Your task to perform on an android device: turn on bluetooth scan Image 0: 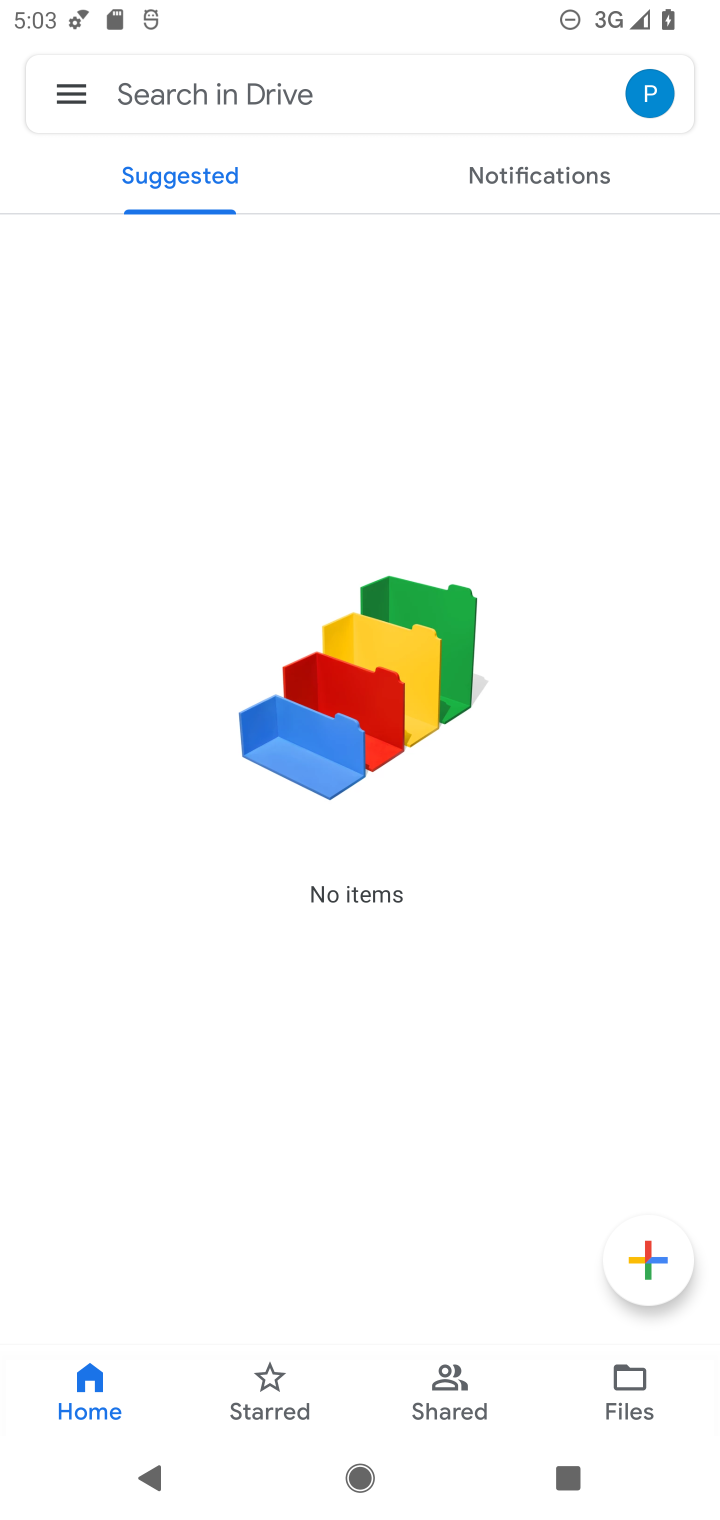
Step 0: press home button
Your task to perform on an android device: turn on bluetooth scan Image 1: 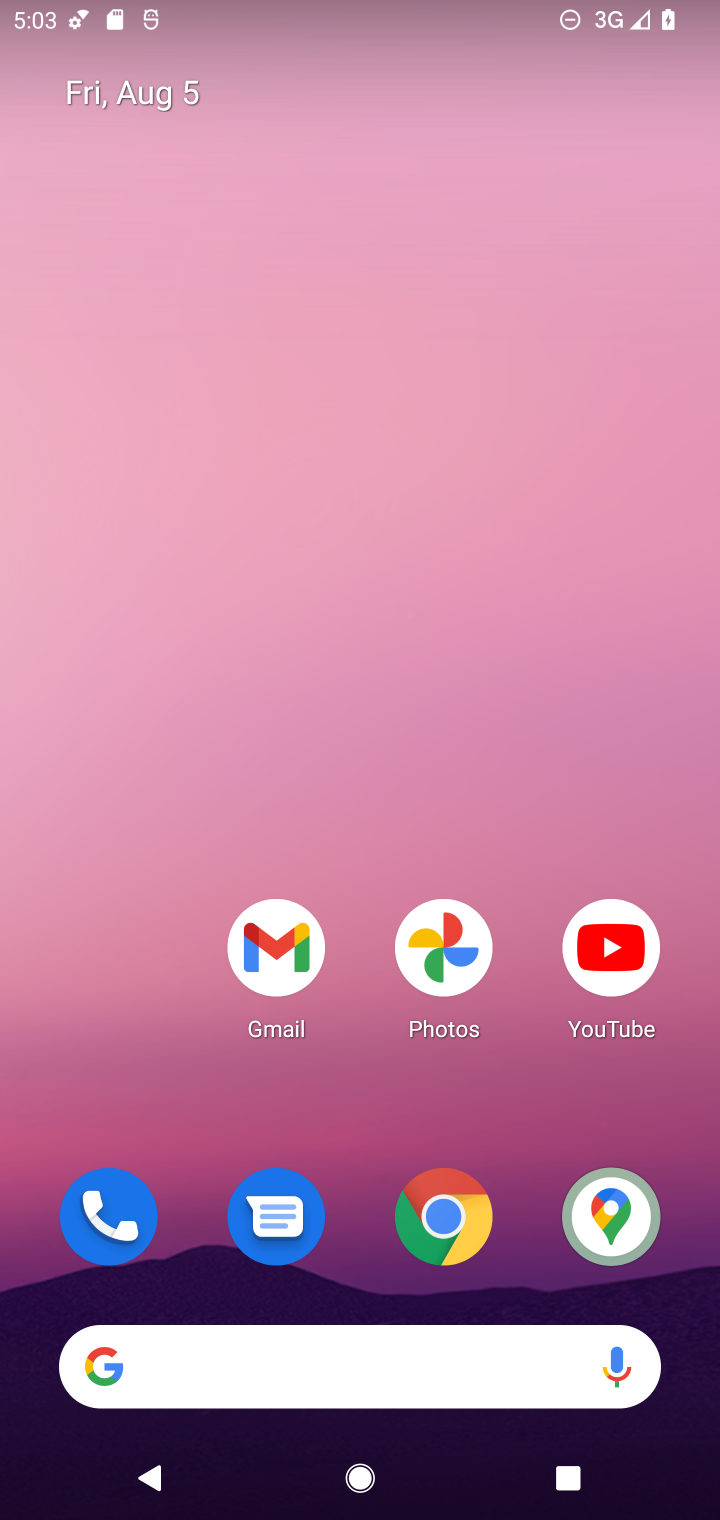
Step 1: drag from (351, 1132) to (312, 220)
Your task to perform on an android device: turn on bluetooth scan Image 2: 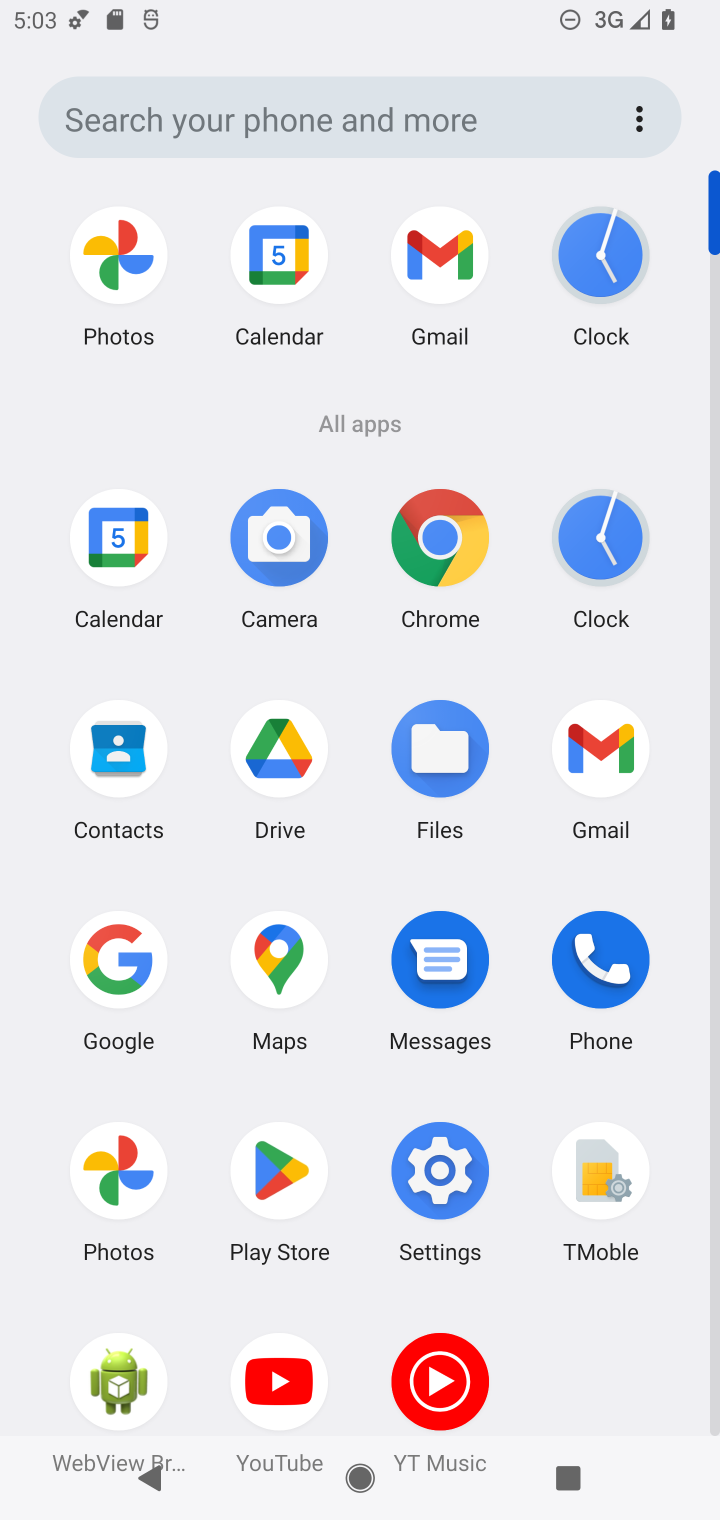
Step 2: click (413, 1164)
Your task to perform on an android device: turn on bluetooth scan Image 3: 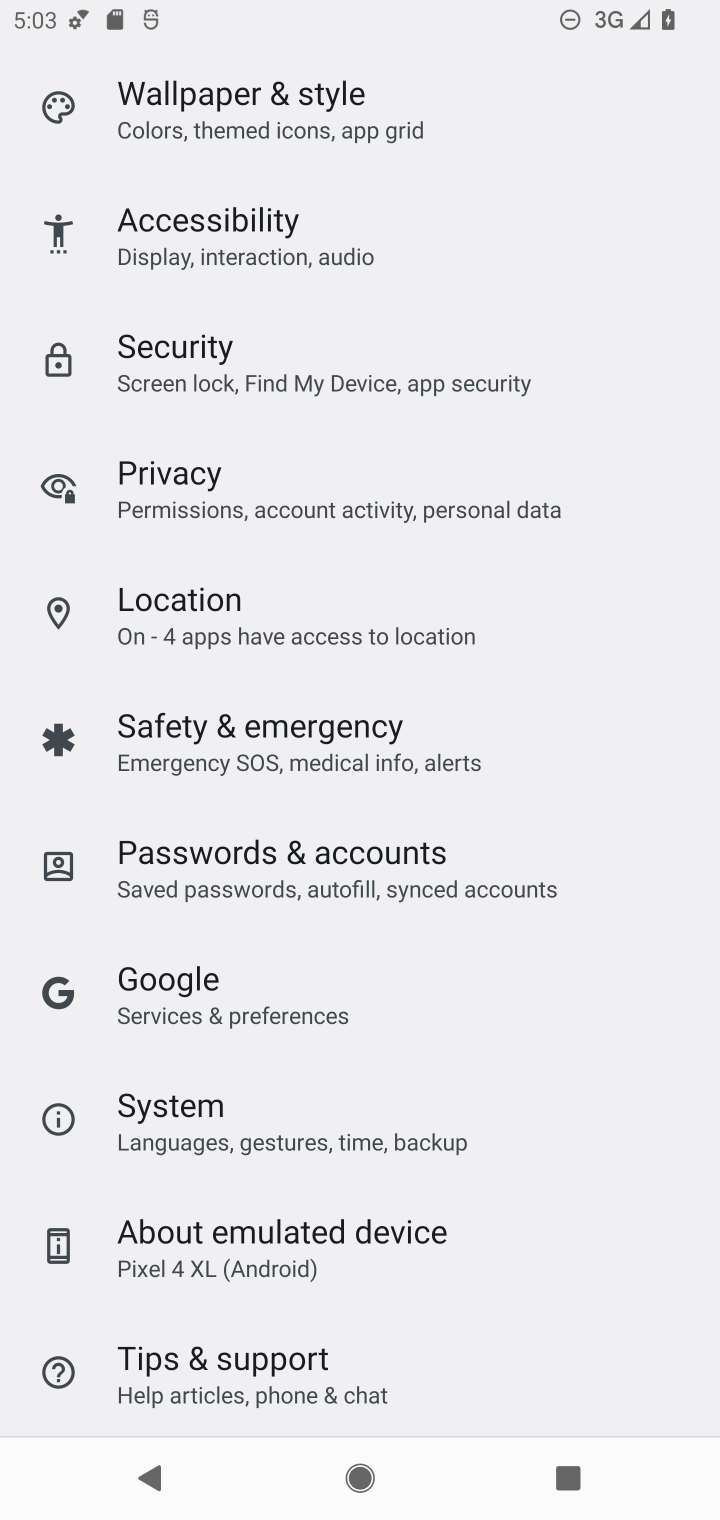
Step 3: click (303, 628)
Your task to perform on an android device: turn on bluetooth scan Image 4: 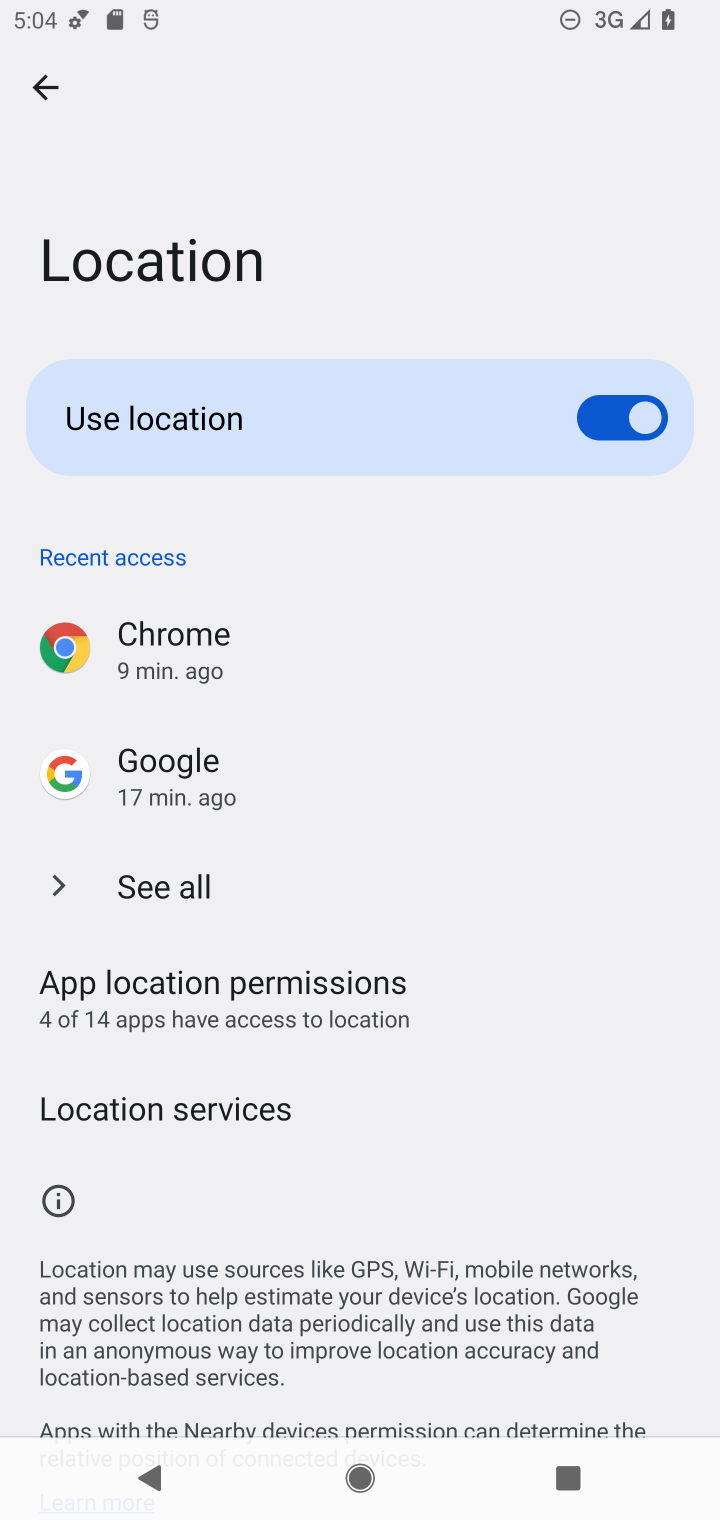
Step 4: click (216, 1092)
Your task to perform on an android device: turn on bluetooth scan Image 5: 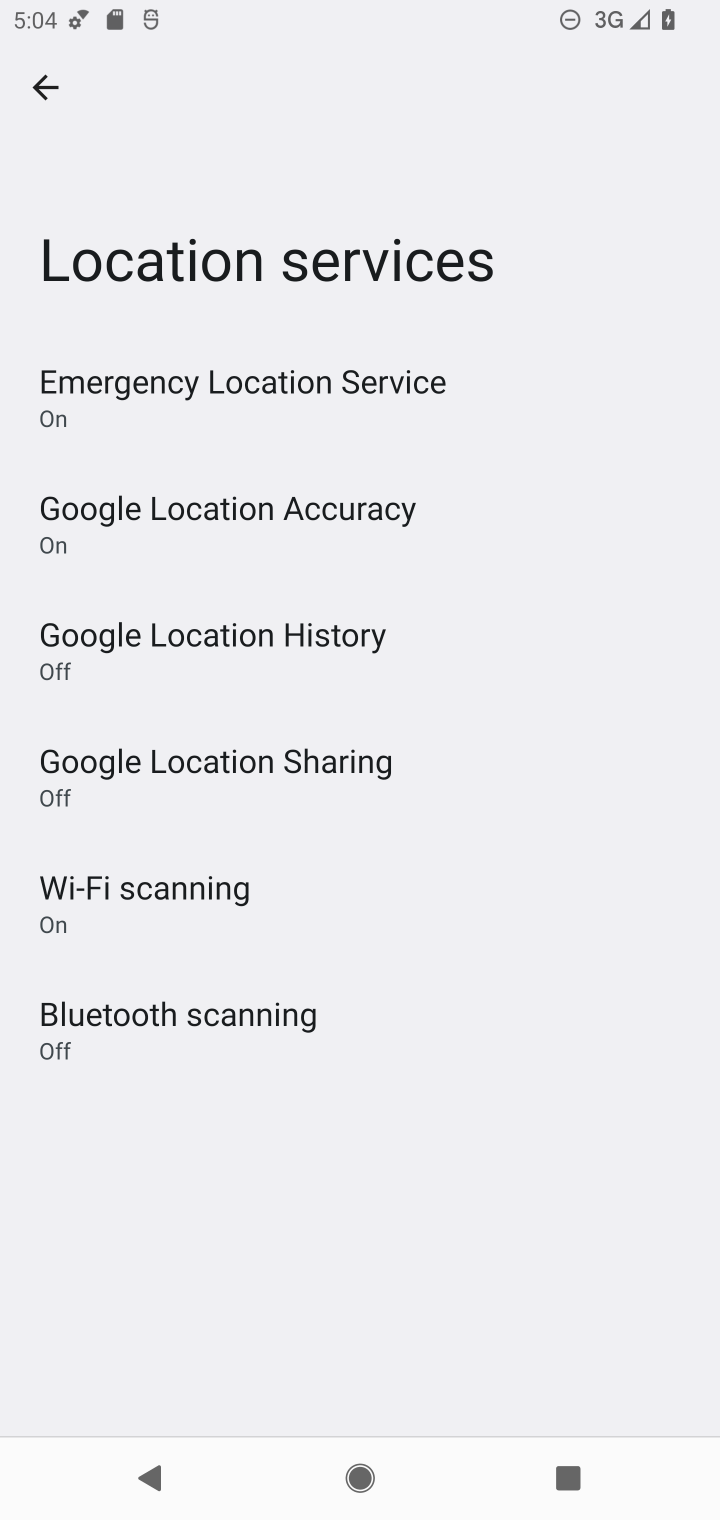
Step 5: click (283, 1023)
Your task to perform on an android device: turn on bluetooth scan Image 6: 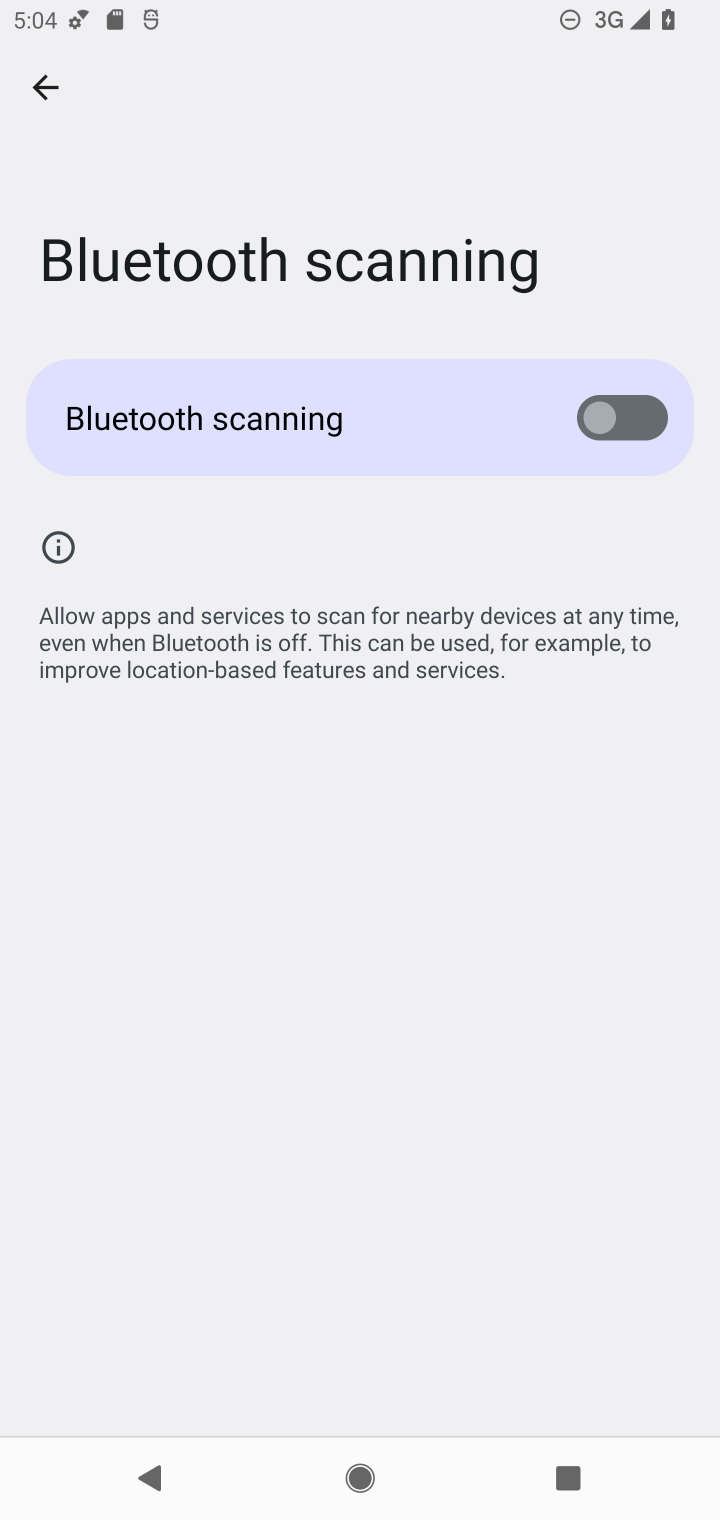
Step 6: click (636, 406)
Your task to perform on an android device: turn on bluetooth scan Image 7: 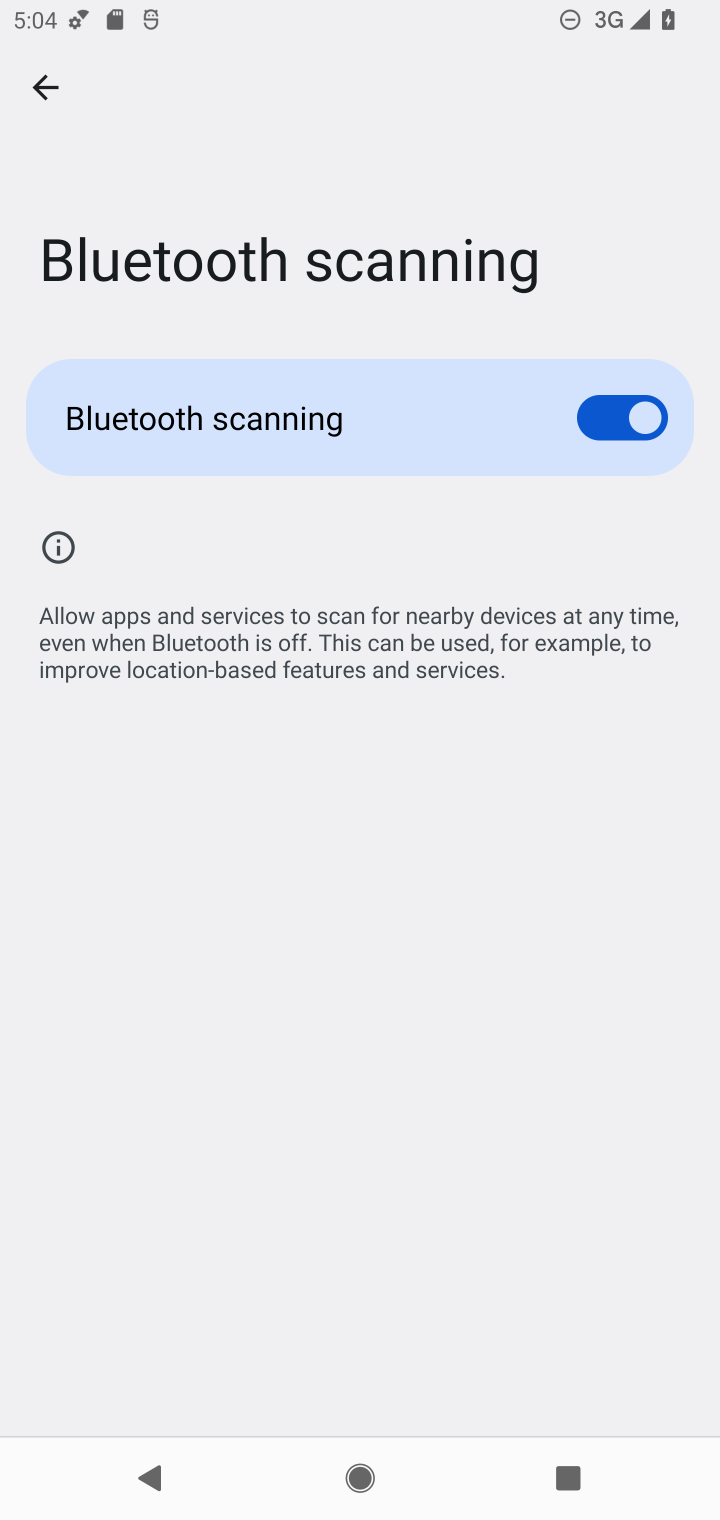
Step 7: task complete